Your task to perform on an android device: Open calendar and show me the fourth week of next month Image 0: 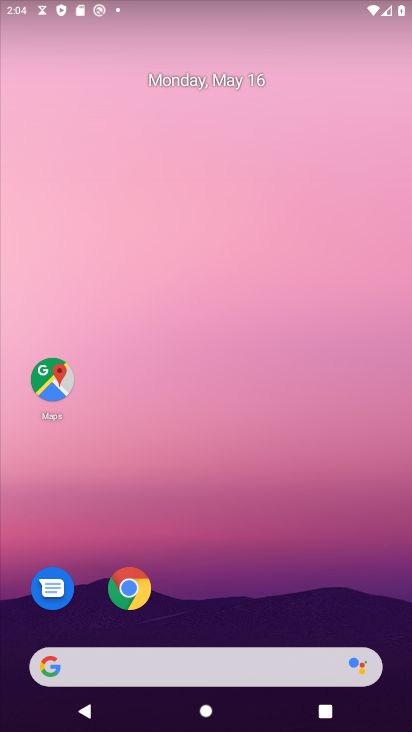
Step 0: drag from (226, 716) to (223, 284)
Your task to perform on an android device: Open calendar and show me the fourth week of next month Image 1: 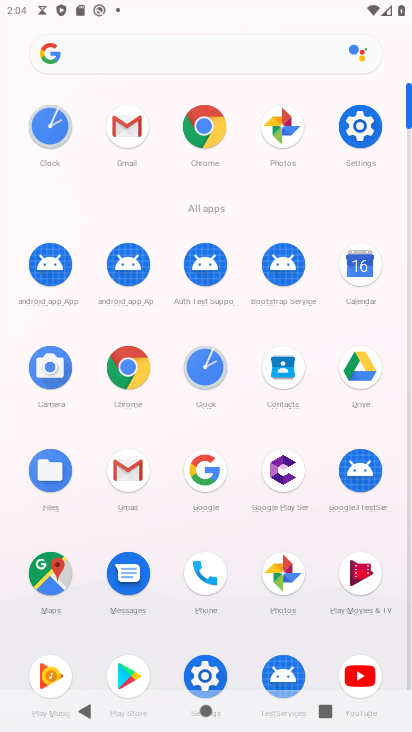
Step 1: click (362, 257)
Your task to perform on an android device: Open calendar and show me the fourth week of next month Image 2: 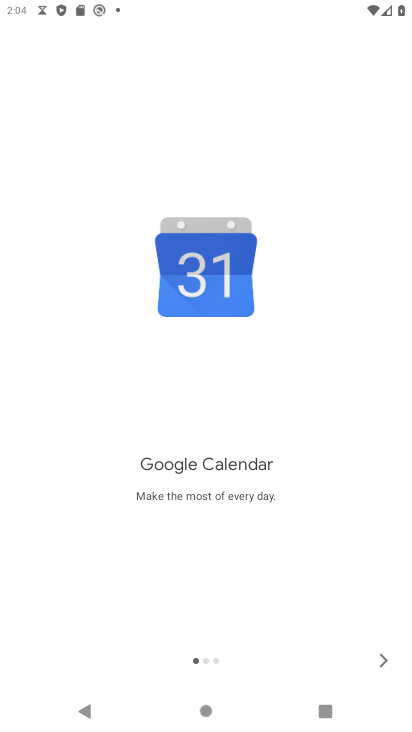
Step 2: click (380, 660)
Your task to perform on an android device: Open calendar and show me the fourth week of next month Image 3: 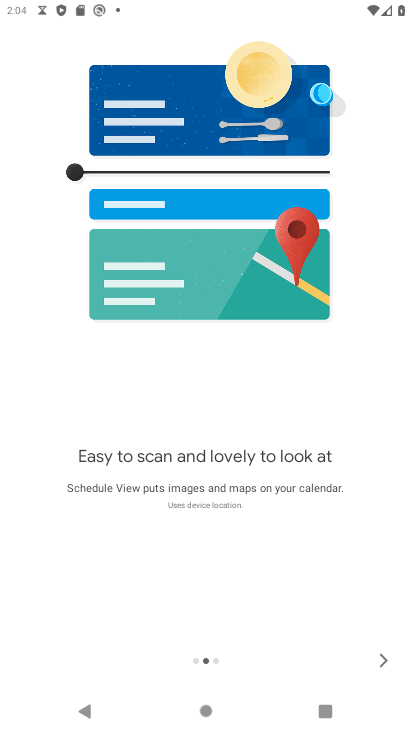
Step 3: click (381, 657)
Your task to perform on an android device: Open calendar and show me the fourth week of next month Image 4: 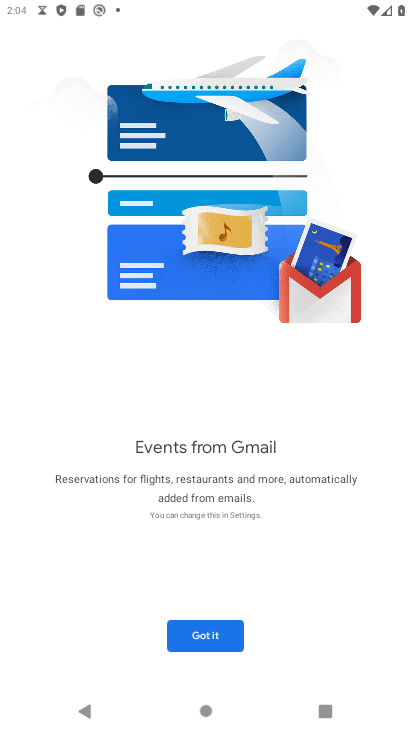
Step 4: click (232, 627)
Your task to perform on an android device: Open calendar and show me the fourth week of next month Image 5: 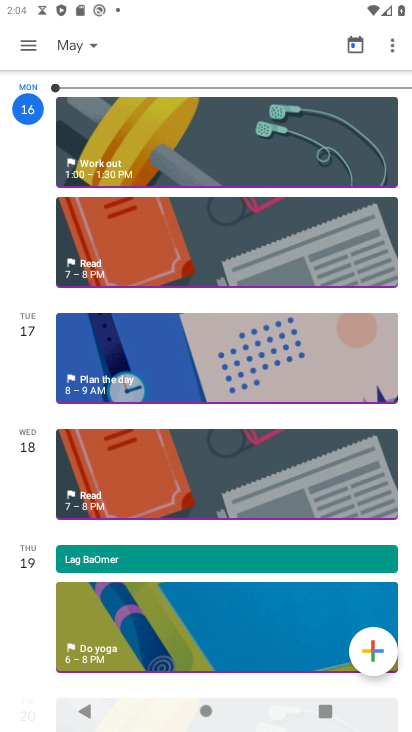
Step 5: click (70, 41)
Your task to perform on an android device: Open calendar and show me the fourth week of next month Image 6: 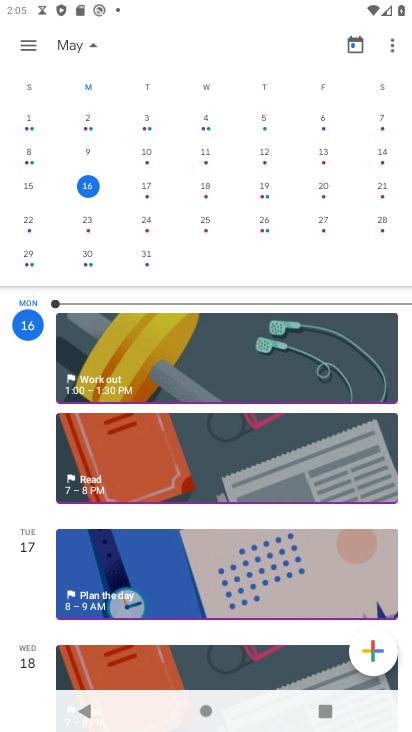
Step 6: drag from (346, 186) to (0, 171)
Your task to perform on an android device: Open calendar and show me the fourth week of next month Image 7: 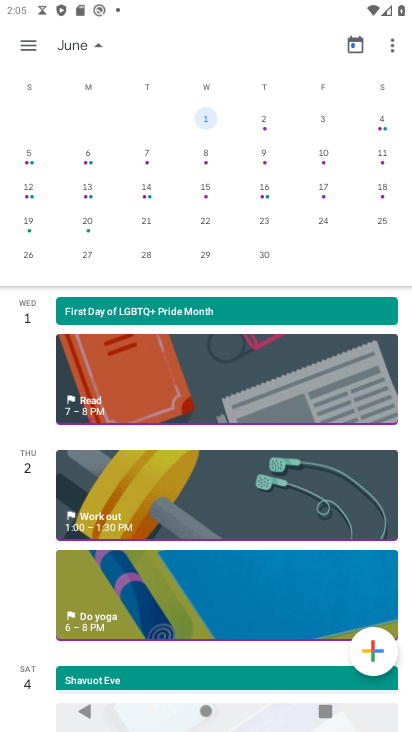
Step 7: click (83, 253)
Your task to perform on an android device: Open calendar and show me the fourth week of next month Image 8: 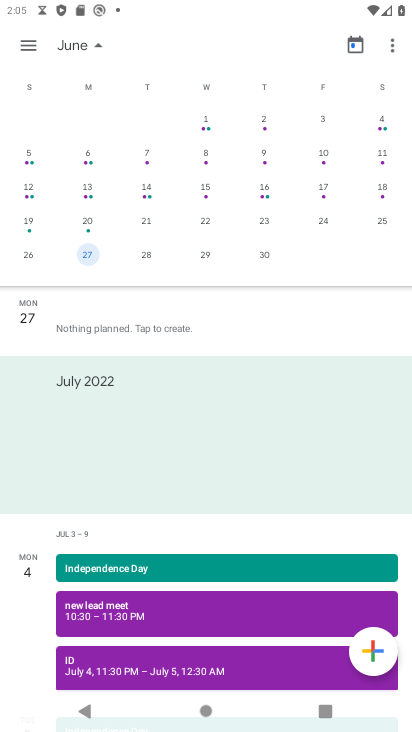
Step 8: click (28, 46)
Your task to perform on an android device: Open calendar and show me the fourth week of next month Image 9: 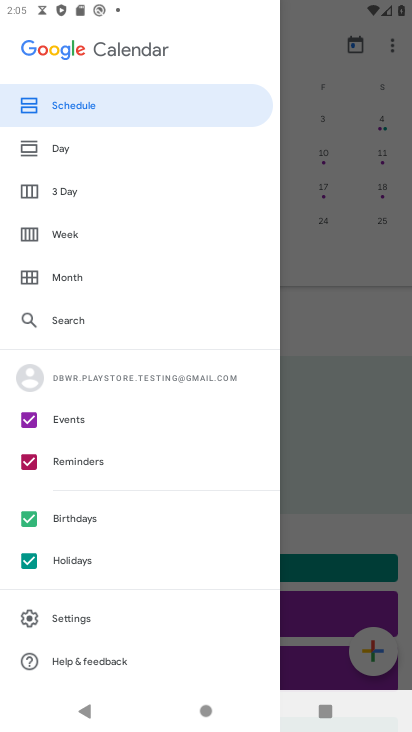
Step 9: click (63, 235)
Your task to perform on an android device: Open calendar and show me the fourth week of next month Image 10: 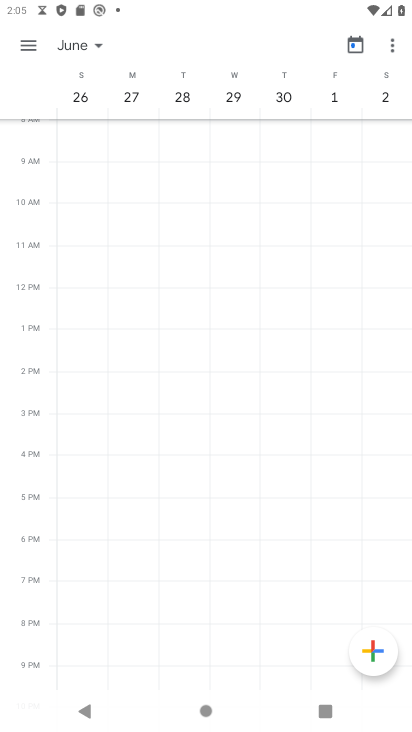
Step 10: task complete